Your task to perform on an android device: toggle data saver in the chrome app Image 0: 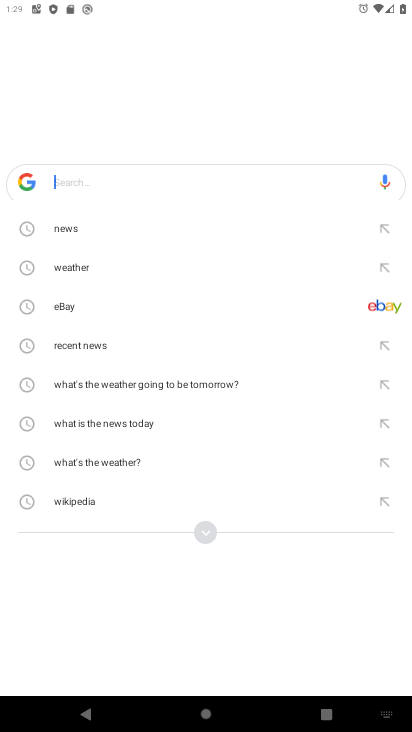
Step 0: press home button
Your task to perform on an android device: toggle data saver in the chrome app Image 1: 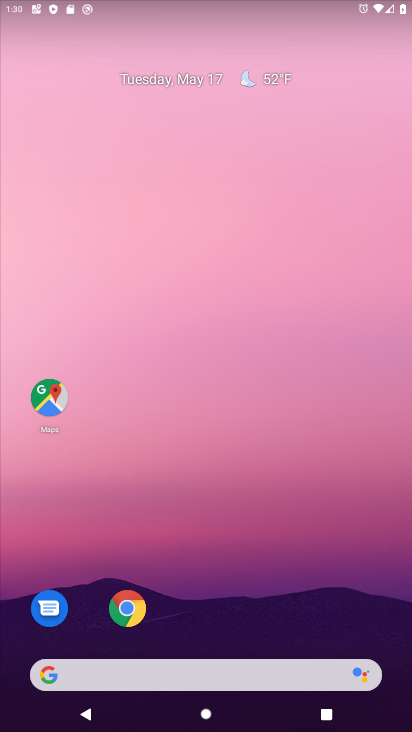
Step 1: click (131, 602)
Your task to perform on an android device: toggle data saver in the chrome app Image 2: 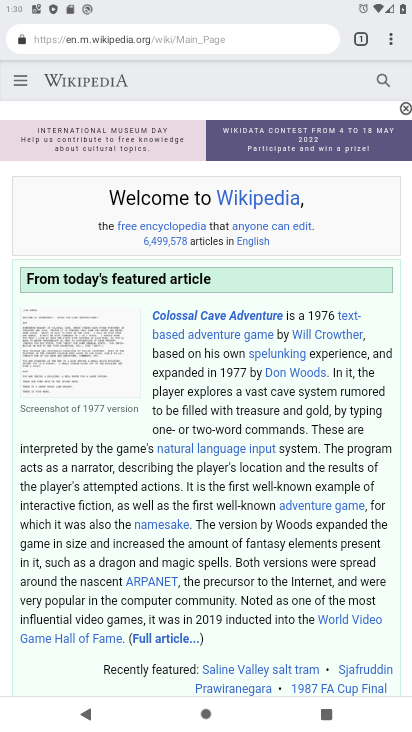
Step 2: click (387, 38)
Your task to perform on an android device: toggle data saver in the chrome app Image 3: 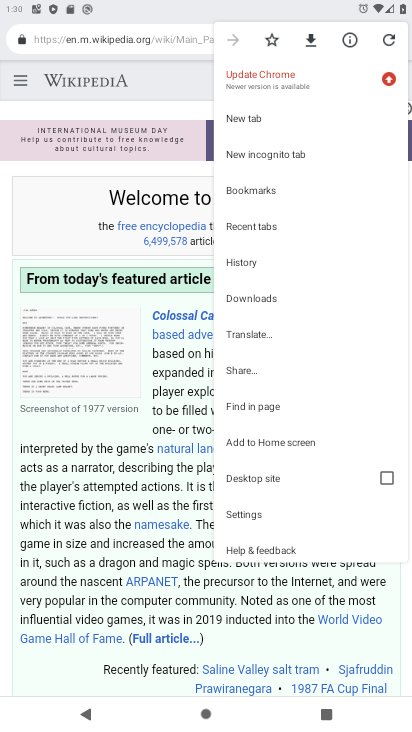
Step 3: click (253, 520)
Your task to perform on an android device: toggle data saver in the chrome app Image 4: 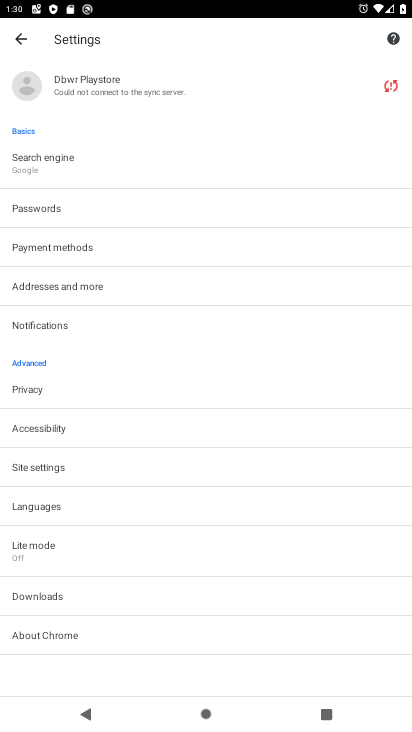
Step 4: click (61, 558)
Your task to perform on an android device: toggle data saver in the chrome app Image 5: 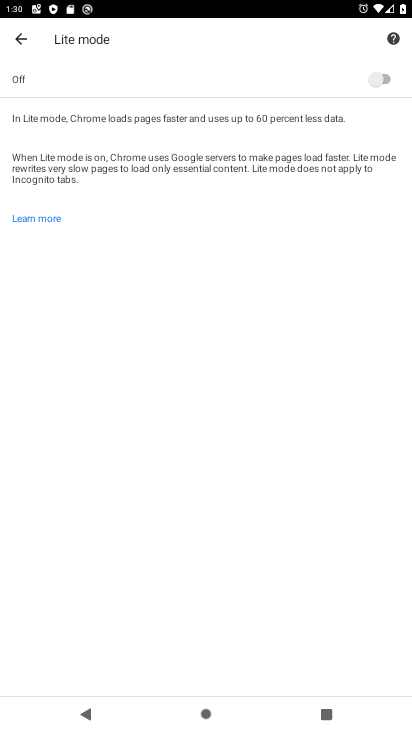
Step 5: task complete